Your task to perform on an android device: Open eBay Image 0: 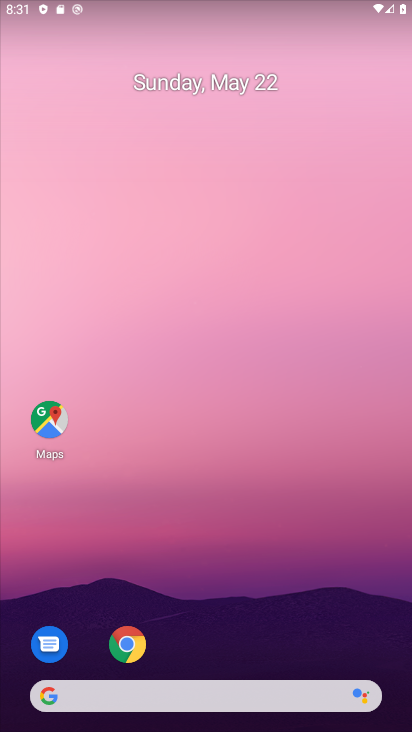
Step 0: click (119, 640)
Your task to perform on an android device: Open eBay Image 1: 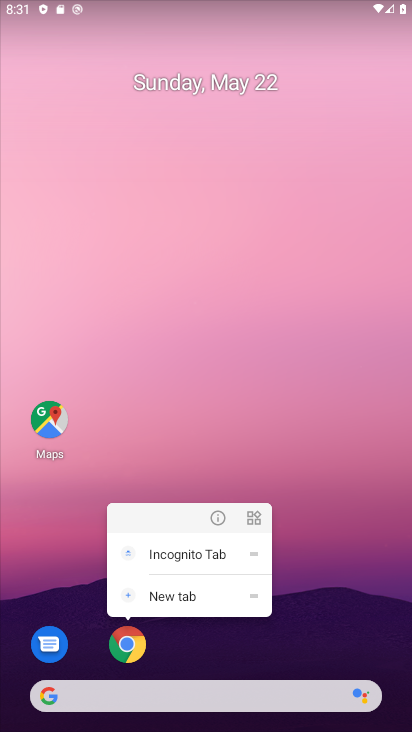
Step 1: click (119, 640)
Your task to perform on an android device: Open eBay Image 2: 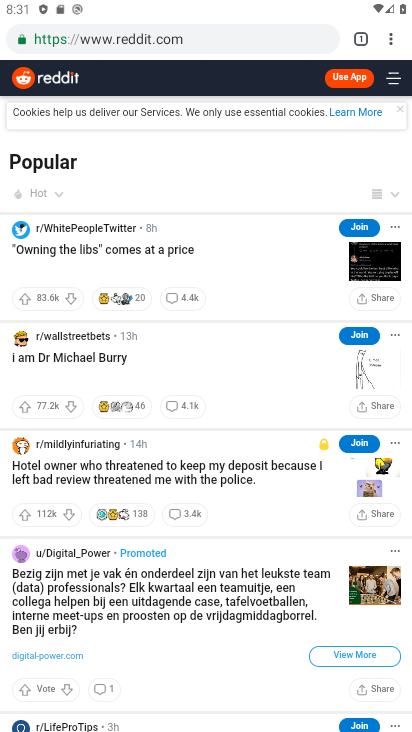
Step 2: click (212, 32)
Your task to perform on an android device: Open eBay Image 3: 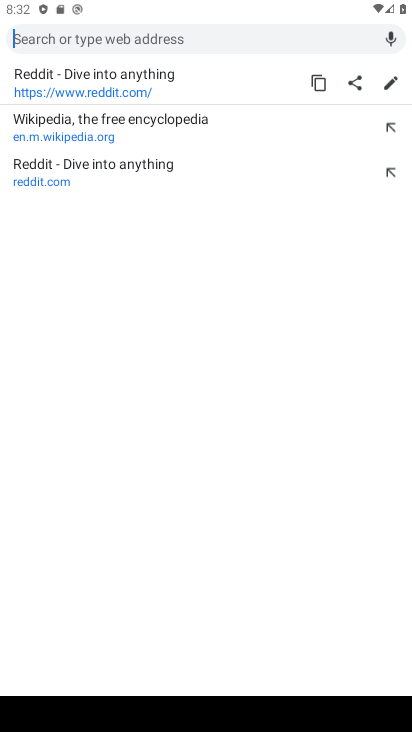
Step 3: type "ebay"
Your task to perform on an android device: Open eBay Image 4: 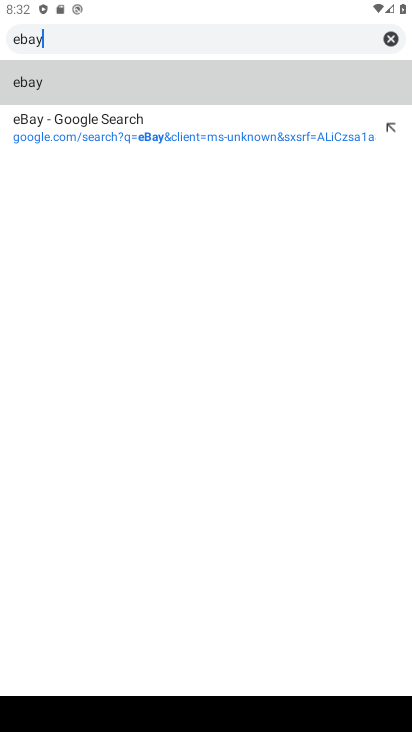
Step 4: click (129, 125)
Your task to perform on an android device: Open eBay Image 5: 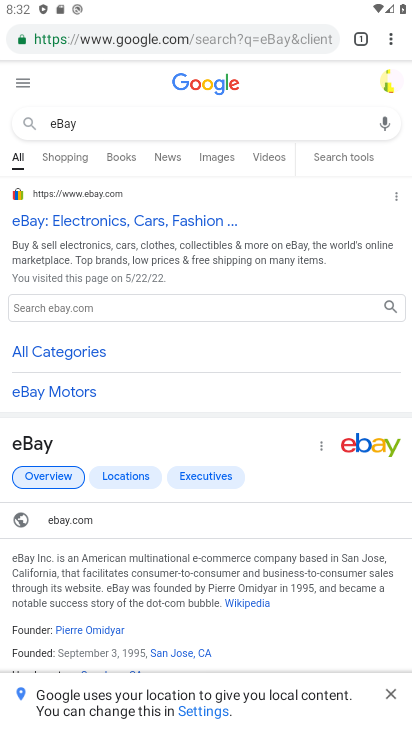
Step 5: click (97, 223)
Your task to perform on an android device: Open eBay Image 6: 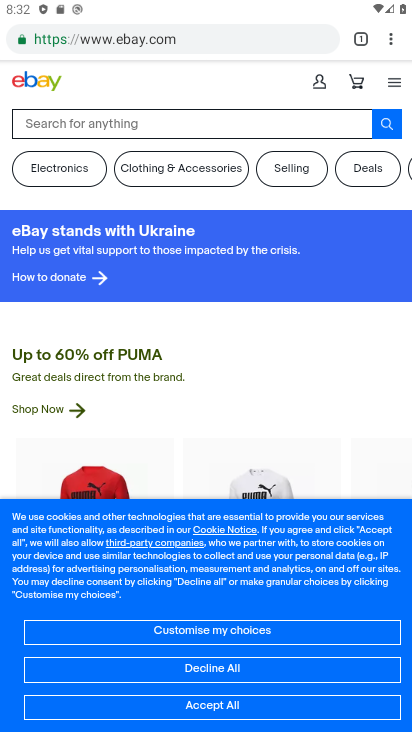
Step 6: task complete